Your task to perform on an android device: Open calendar and show me the first week of next month Image 0: 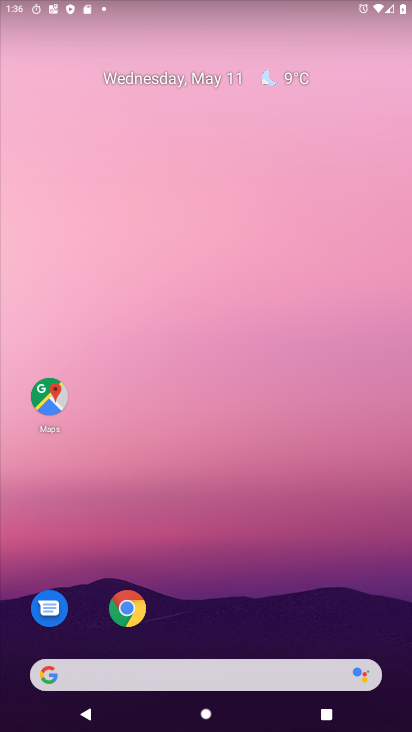
Step 0: drag from (211, 674) to (211, 80)
Your task to perform on an android device: Open calendar and show me the first week of next month Image 1: 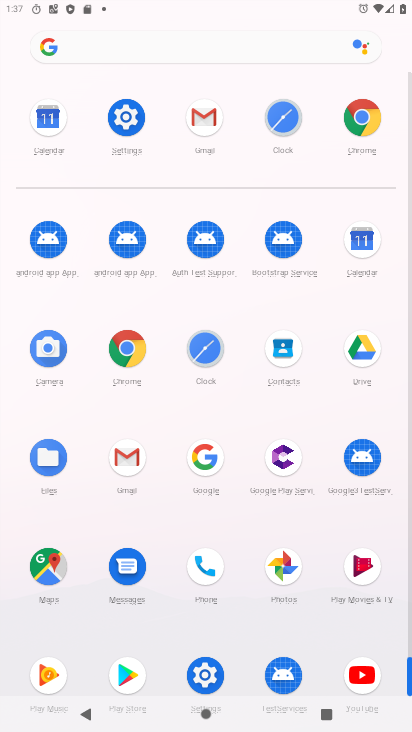
Step 1: click (364, 254)
Your task to perform on an android device: Open calendar and show me the first week of next month Image 2: 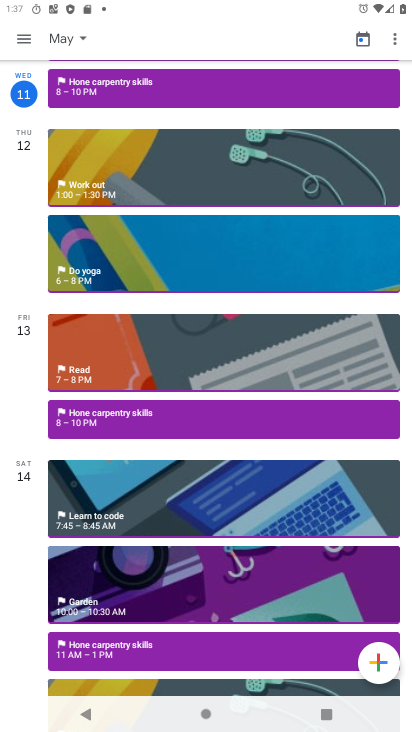
Step 2: click (81, 42)
Your task to perform on an android device: Open calendar and show me the first week of next month Image 3: 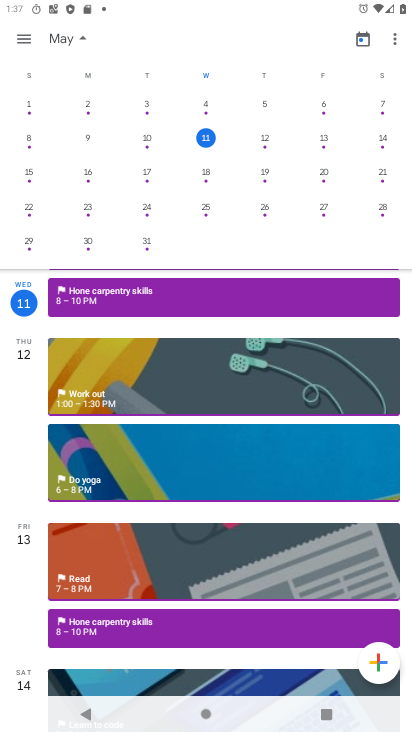
Step 3: drag from (286, 170) to (16, 67)
Your task to perform on an android device: Open calendar and show me the first week of next month Image 4: 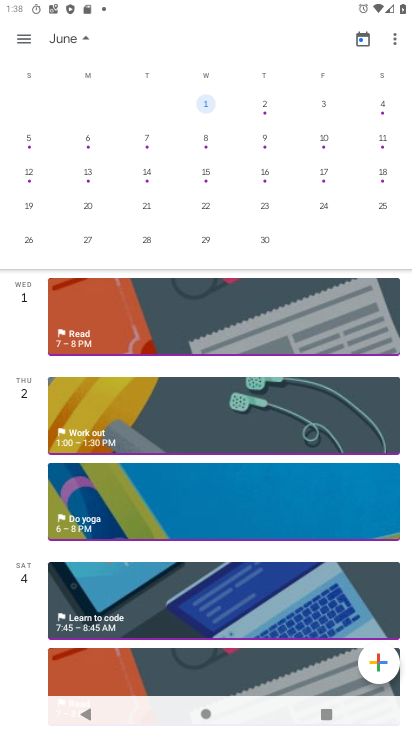
Step 4: click (25, 139)
Your task to perform on an android device: Open calendar and show me the first week of next month Image 5: 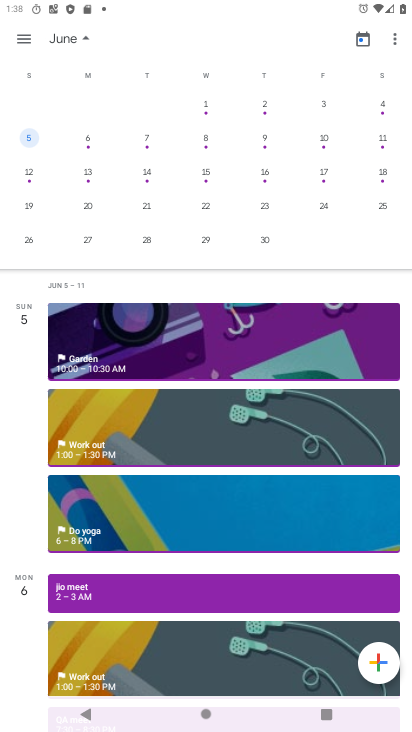
Step 5: task complete